Your task to perform on an android device: turn off translation in the chrome app Image 0: 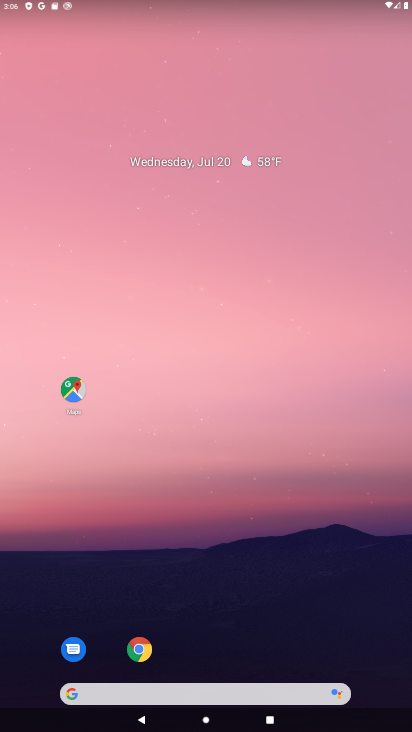
Step 0: drag from (219, 728) to (218, 166)
Your task to perform on an android device: turn off translation in the chrome app Image 1: 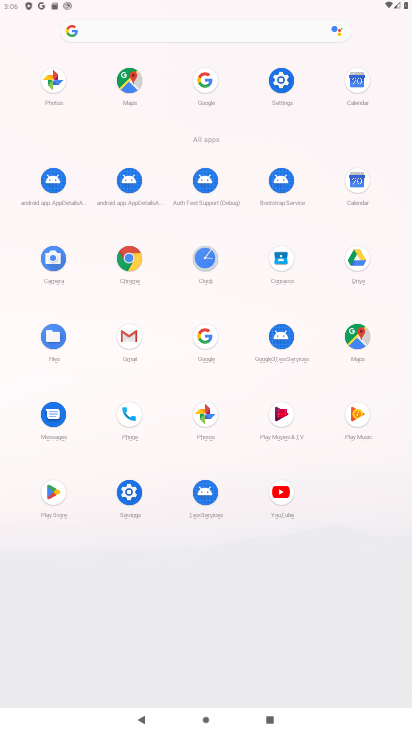
Step 1: click (127, 257)
Your task to perform on an android device: turn off translation in the chrome app Image 2: 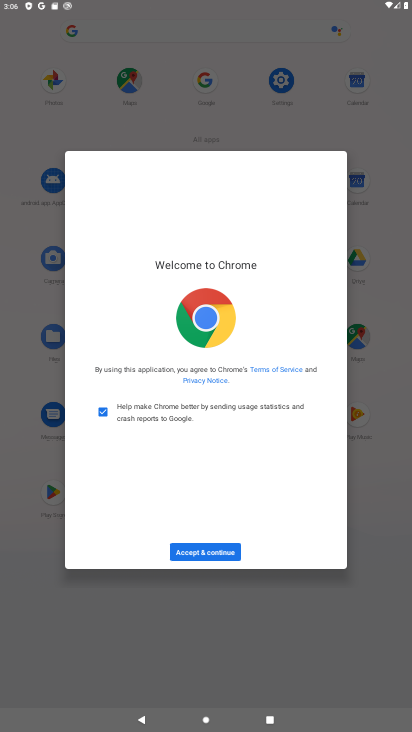
Step 2: click (201, 545)
Your task to perform on an android device: turn off translation in the chrome app Image 3: 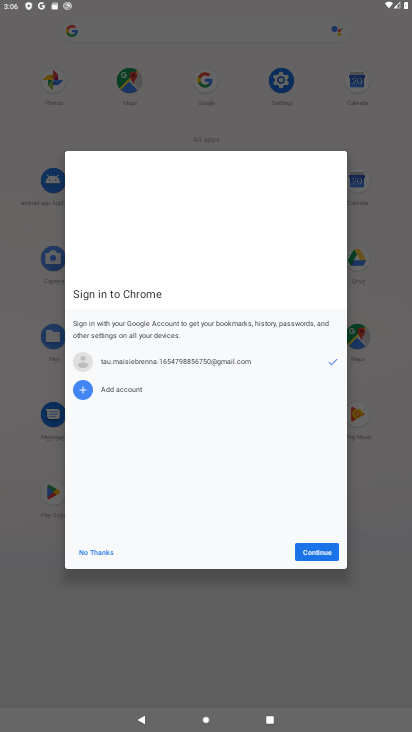
Step 3: click (306, 546)
Your task to perform on an android device: turn off translation in the chrome app Image 4: 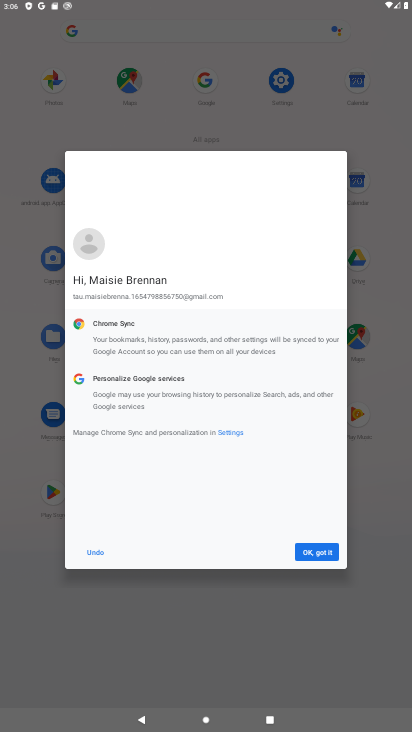
Step 4: click (306, 547)
Your task to perform on an android device: turn off translation in the chrome app Image 5: 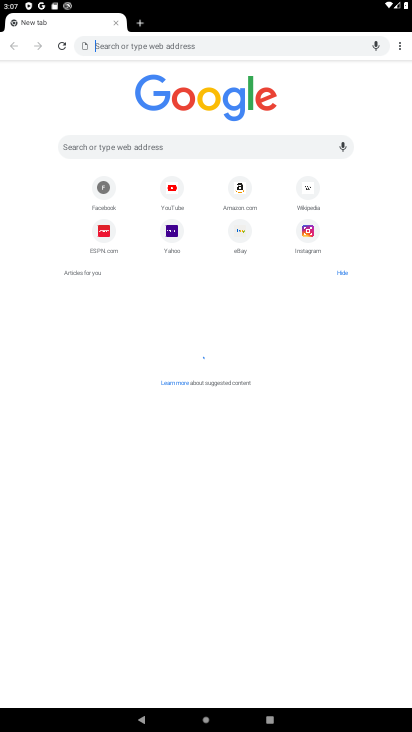
Step 5: click (400, 43)
Your task to perform on an android device: turn off translation in the chrome app Image 6: 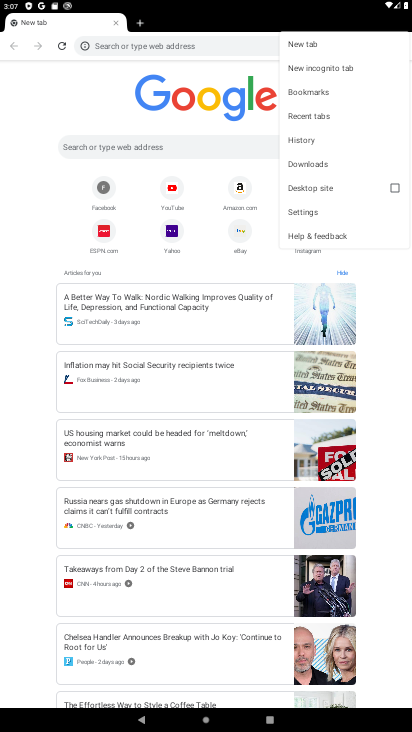
Step 6: click (313, 209)
Your task to perform on an android device: turn off translation in the chrome app Image 7: 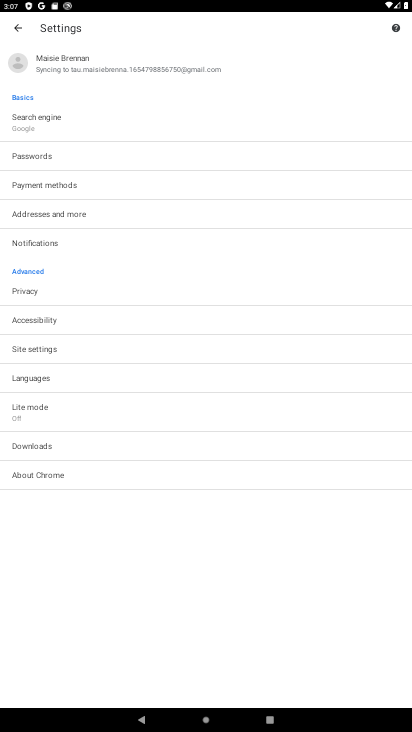
Step 7: click (38, 377)
Your task to perform on an android device: turn off translation in the chrome app Image 8: 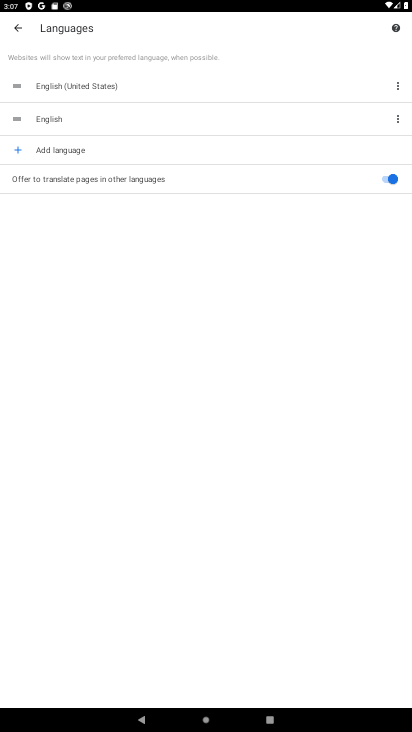
Step 8: click (386, 179)
Your task to perform on an android device: turn off translation in the chrome app Image 9: 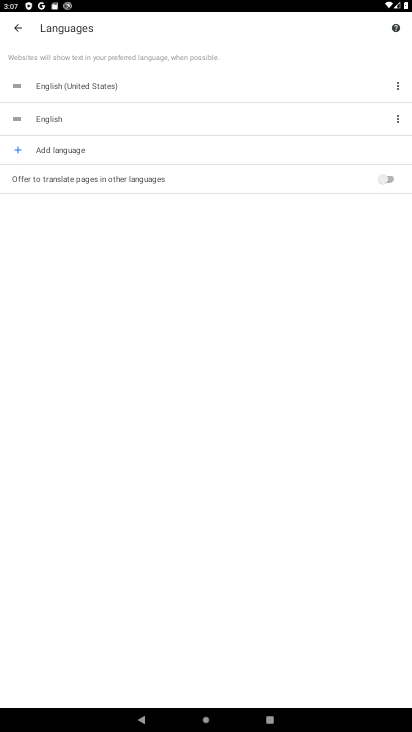
Step 9: task complete